Your task to perform on an android device: Go to Wikipedia Image 0: 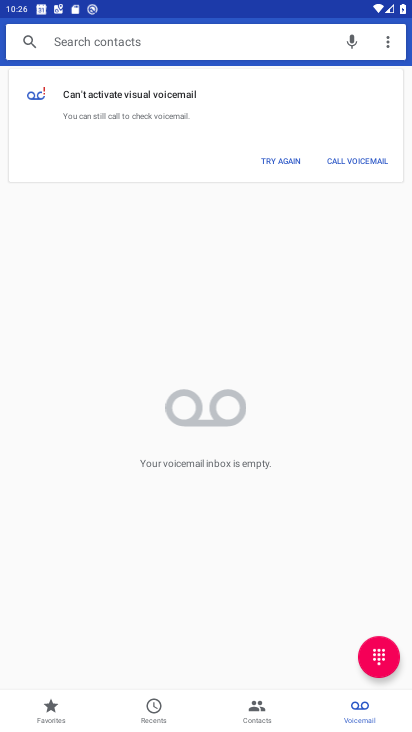
Step 0: press home button
Your task to perform on an android device: Go to Wikipedia Image 1: 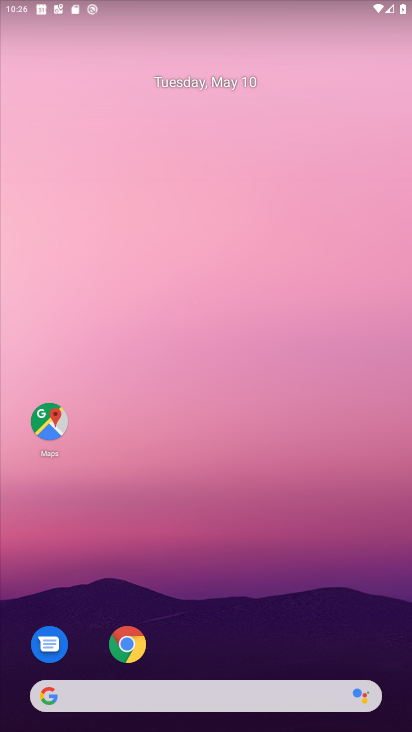
Step 1: drag from (262, 698) to (330, 124)
Your task to perform on an android device: Go to Wikipedia Image 2: 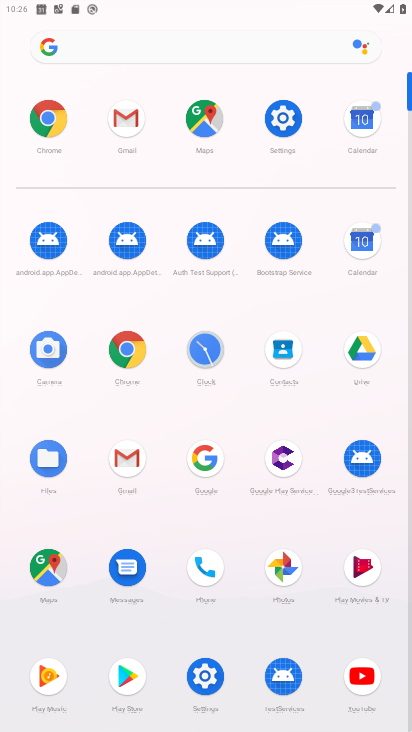
Step 2: click (135, 360)
Your task to perform on an android device: Go to Wikipedia Image 3: 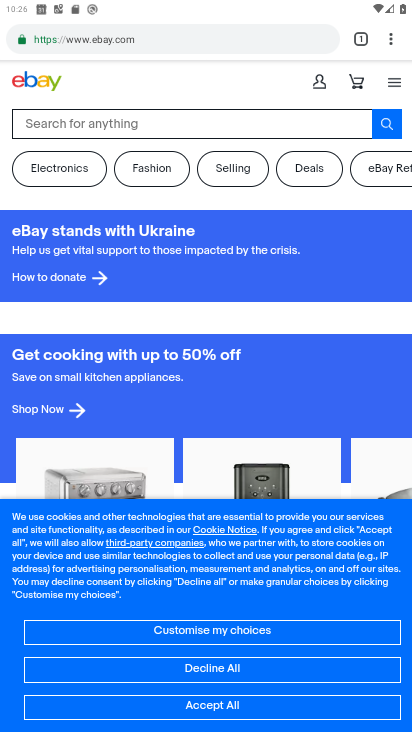
Step 3: click (261, 48)
Your task to perform on an android device: Go to Wikipedia Image 4: 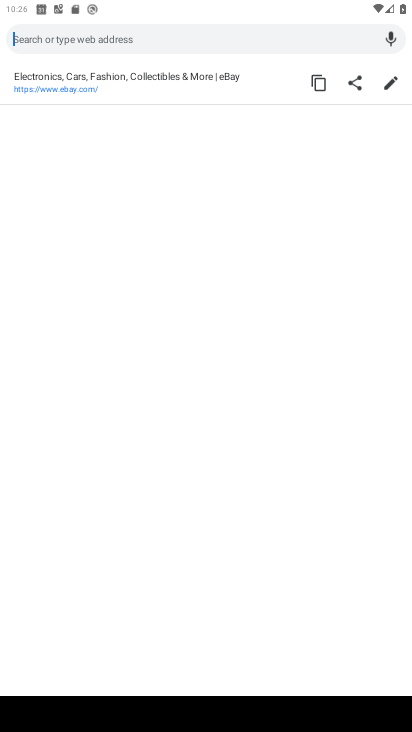
Step 4: type "wikipedia"
Your task to perform on an android device: Go to Wikipedia Image 5: 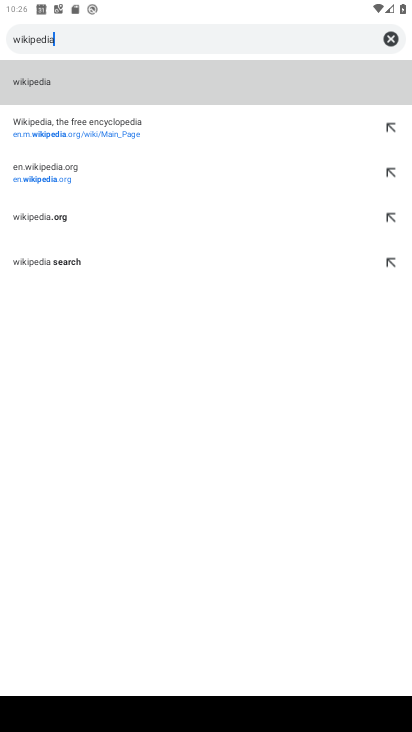
Step 5: click (134, 175)
Your task to perform on an android device: Go to Wikipedia Image 6: 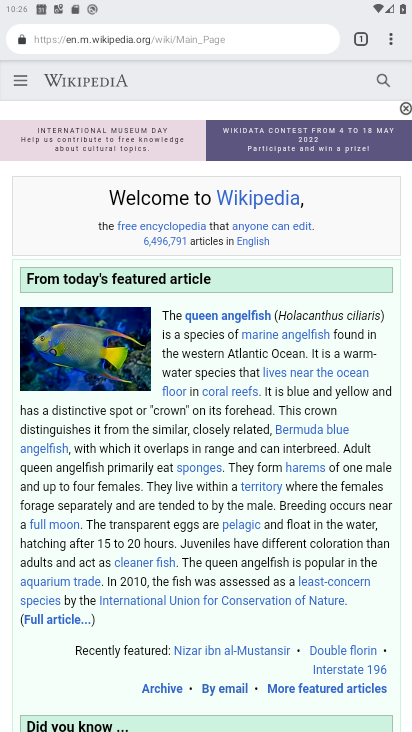
Step 6: task complete